Your task to perform on an android device: toggle translation in the chrome app Image 0: 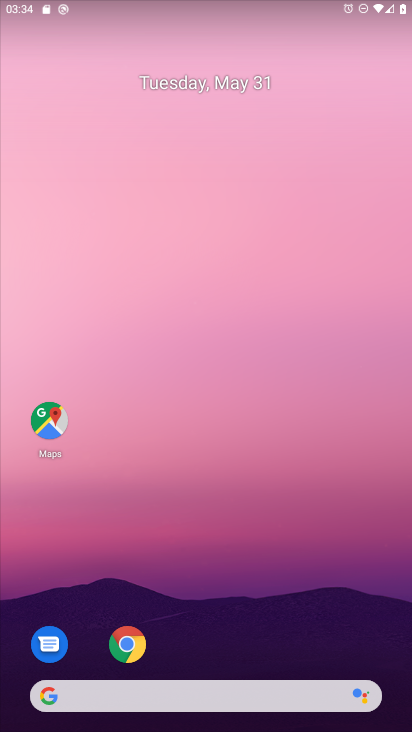
Step 0: drag from (291, 642) to (273, 174)
Your task to perform on an android device: toggle translation in the chrome app Image 1: 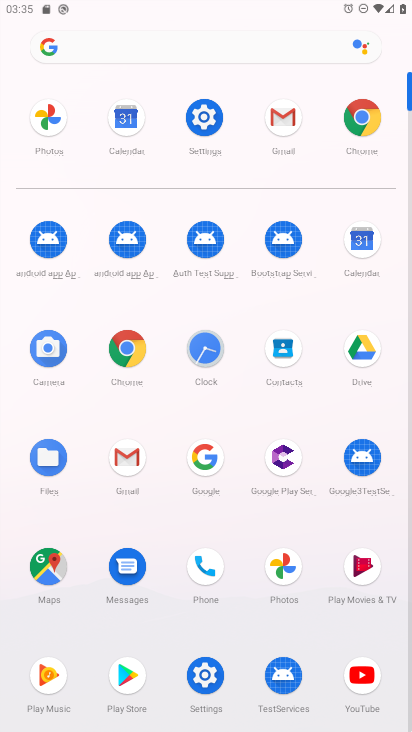
Step 1: click (129, 353)
Your task to perform on an android device: toggle translation in the chrome app Image 2: 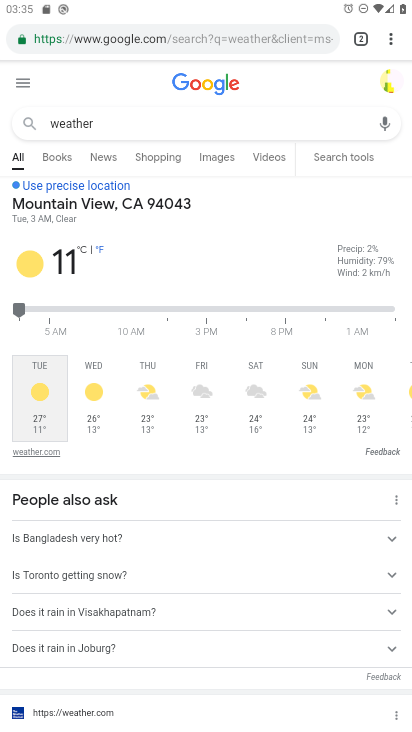
Step 2: click (392, 45)
Your task to perform on an android device: toggle translation in the chrome app Image 3: 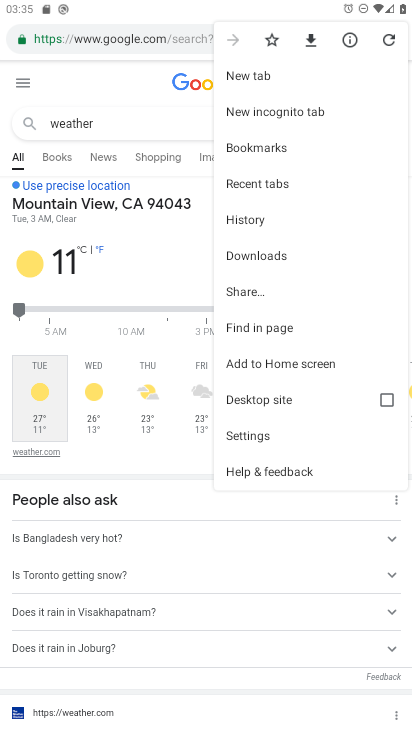
Step 3: click (286, 437)
Your task to perform on an android device: toggle translation in the chrome app Image 4: 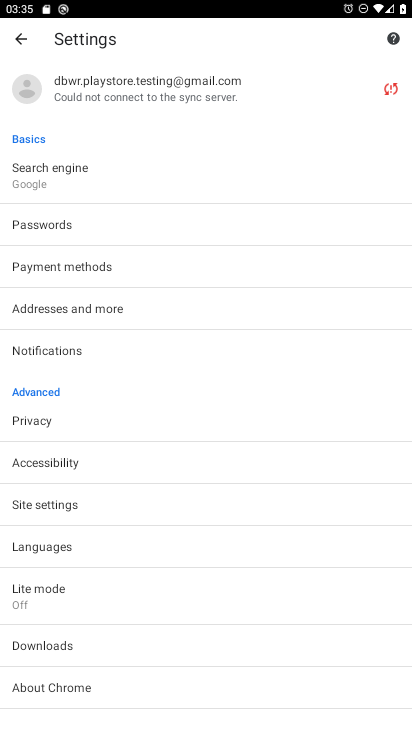
Step 4: drag from (161, 544) to (218, 206)
Your task to perform on an android device: toggle translation in the chrome app Image 5: 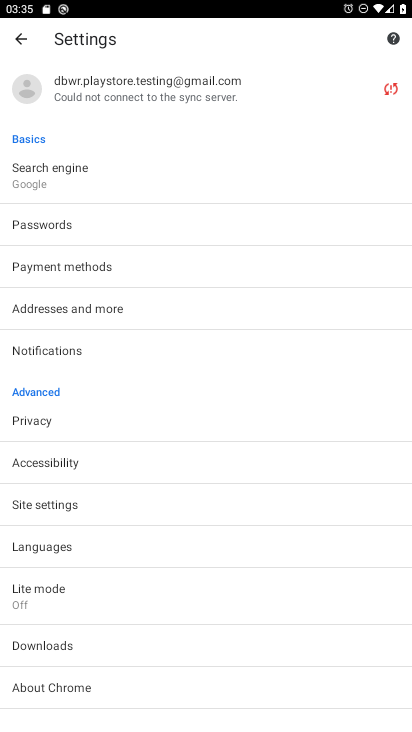
Step 5: click (53, 500)
Your task to perform on an android device: toggle translation in the chrome app Image 6: 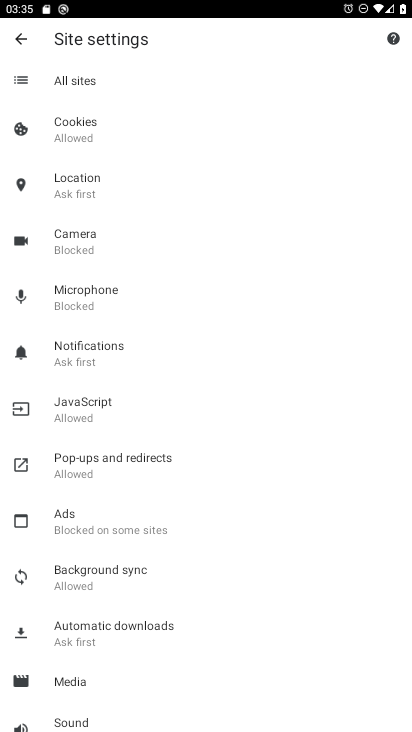
Step 6: click (32, 36)
Your task to perform on an android device: toggle translation in the chrome app Image 7: 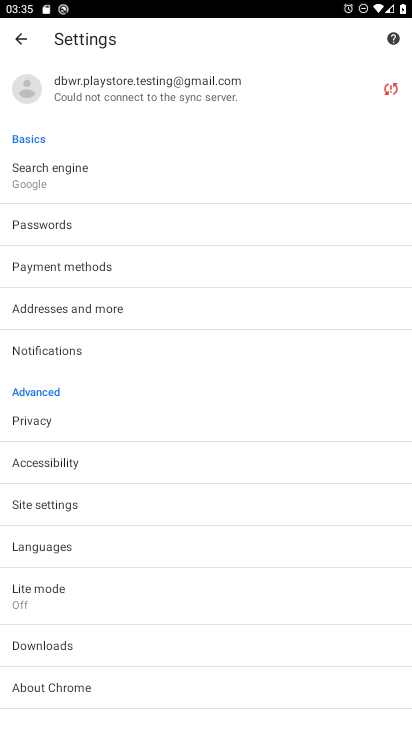
Step 7: click (68, 543)
Your task to perform on an android device: toggle translation in the chrome app Image 8: 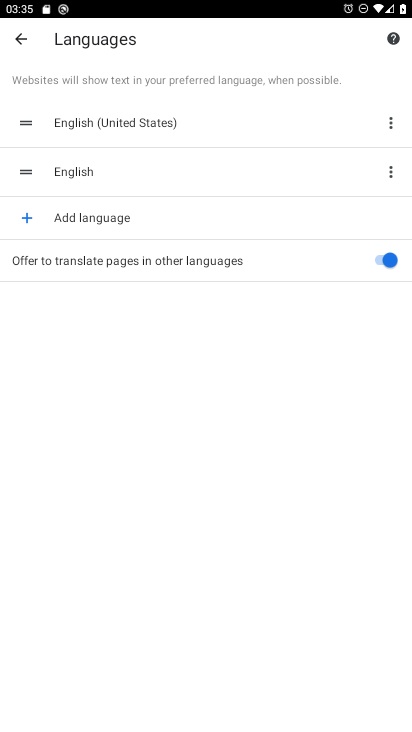
Step 8: click (381, 257)
Your task to perform on an android device: toggle translation in the chrome app Image 9: 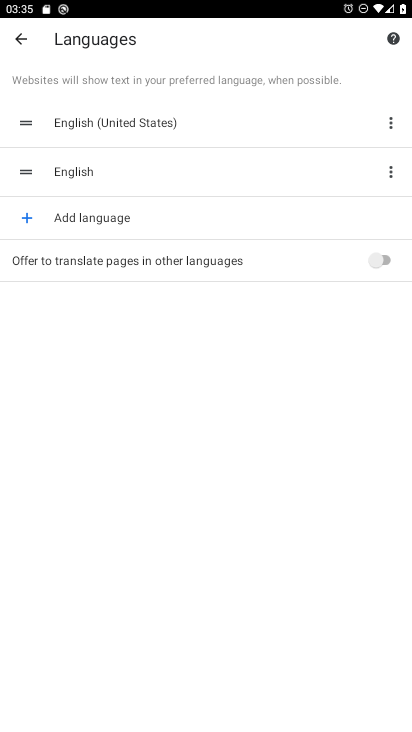
Step 9: task complete